Your task to perform on an android device: see sites visited before in the chrome app Image 0: 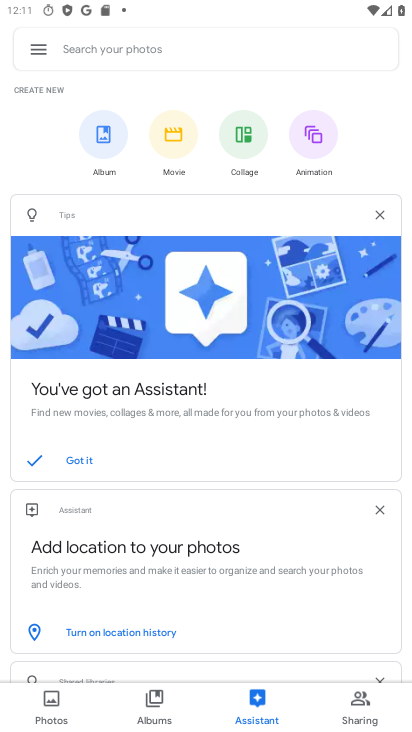
Step 0: drag from (244, 576) to (315, 239)
Your task to perform on an android device: see sites visited before in the chrome app Image 1: 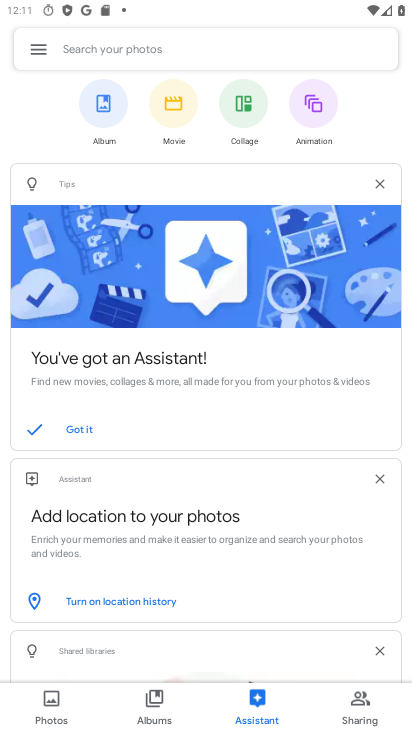
Step 1: press home button
Your task to perform on an android device: see sites visited before in the chrome app Image 2: 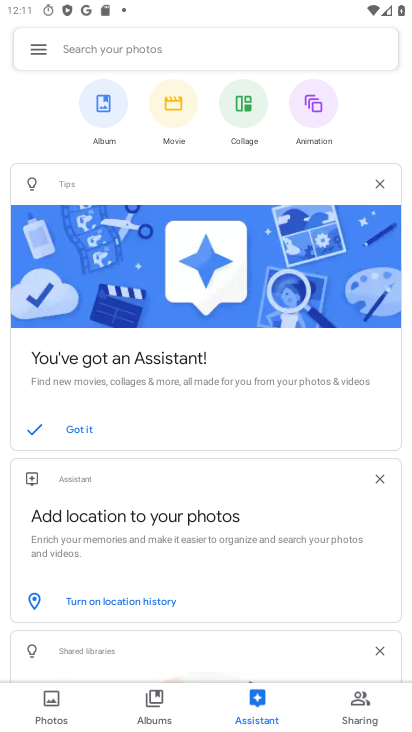
Step 2: drag from (222, 581) to (266, 195)
Your task to perform on an android device: see sites visited before in the chrome app Image 3: 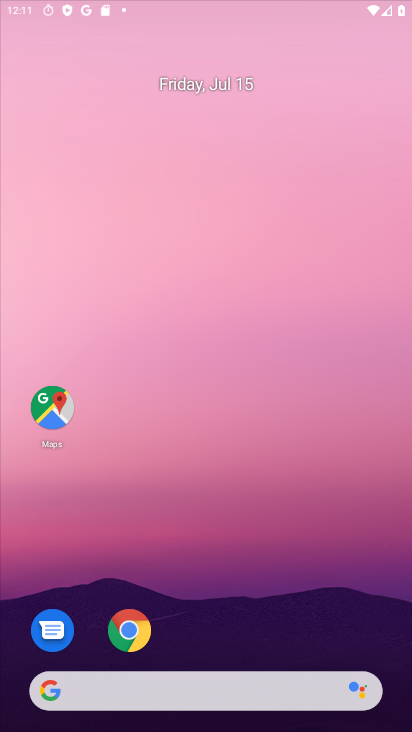
Step 3: drag from (222, 589) to (266, 153)
Your task to perform on an android device: see sites visited before in the chrome app Image 4: 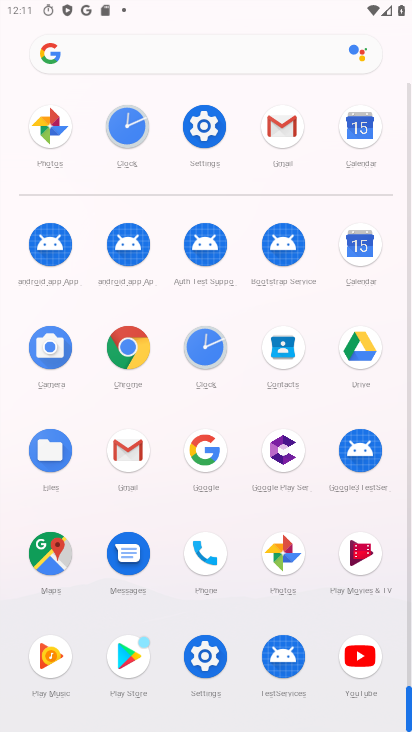
Step 4: click (127, 353)
Your task to perform on an android device: see sites visited before in the chrome app Image 5: 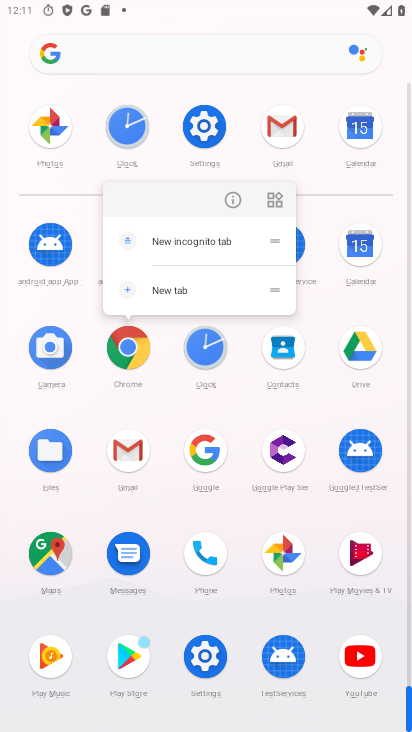
Step 5: click (231, 194)
Your task to perform on an android device: see sites visited before in the chrome app Image 6: 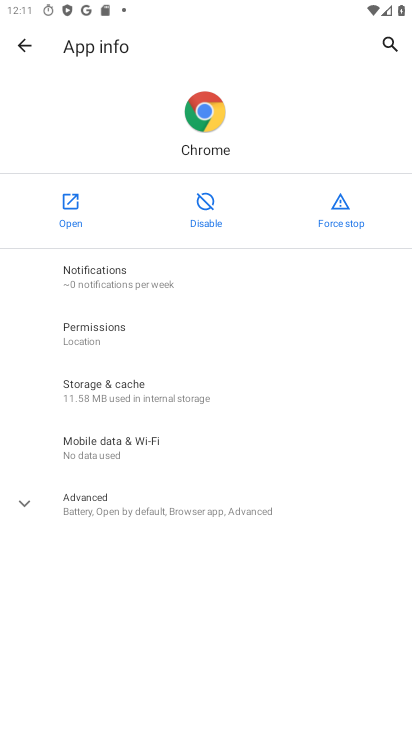
Step 6: click (63, 206)
Your task to perform on an android device: see sites visited before in the chrome app Image 7: 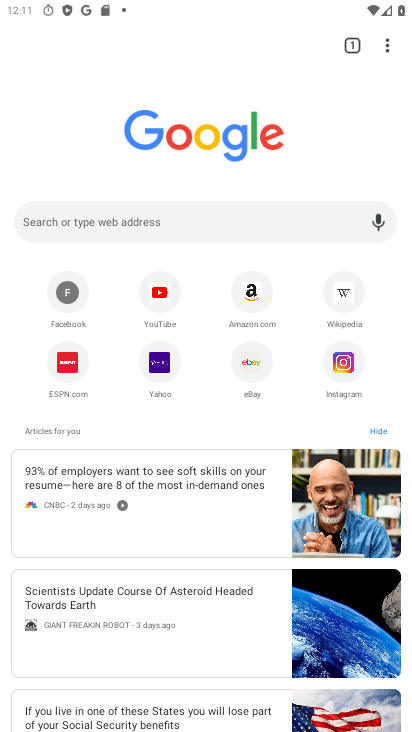
Step 7: drag from (212, 428) to (254, 206)
Your task to perform on an android device: see sites visited before in the chrome app Image 8: 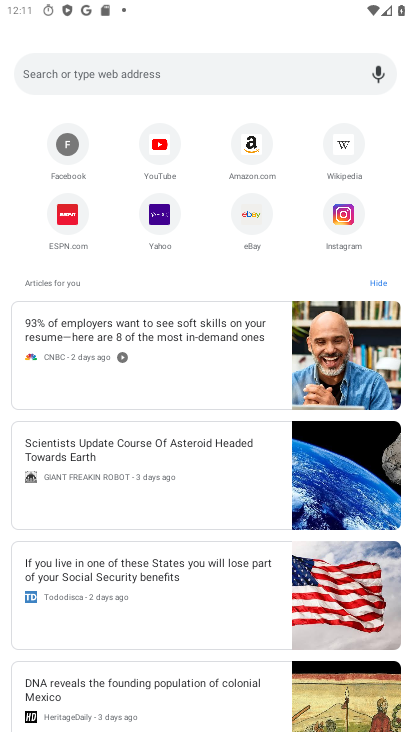
Step 8: drag from (313, 95) to (299, 172)
Your task to perform on an android device: see sites visited before in the chrome app Image 9: 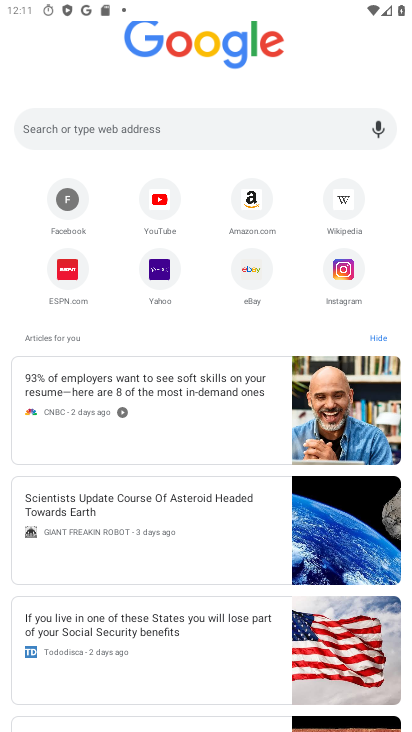
Step 9: drag from (377, 43) to (340, 177)
Your task to perform on an android device: see sites visited before in the chrome app Image 10: 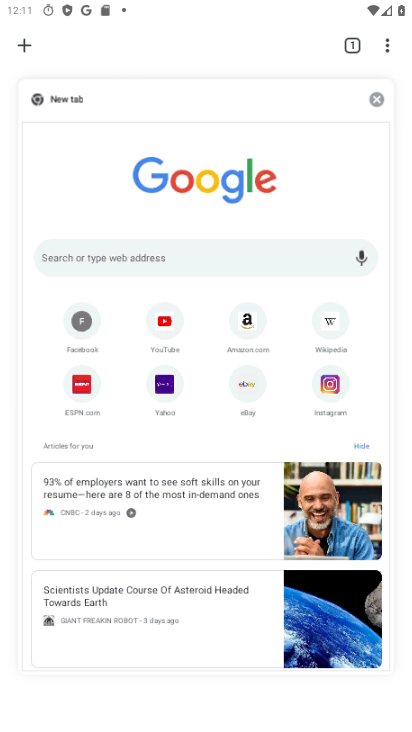
Step 10: click (385, 44)
Your task to perform on an android device: see sites visited before in the chrome app Image 11: 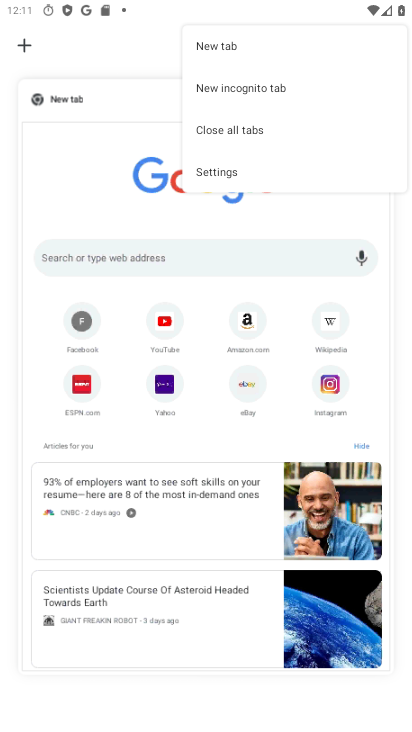
Step 11: click (124, 224)
Your task to perform on an android device: see sites visited before in the chrome app Image 12: 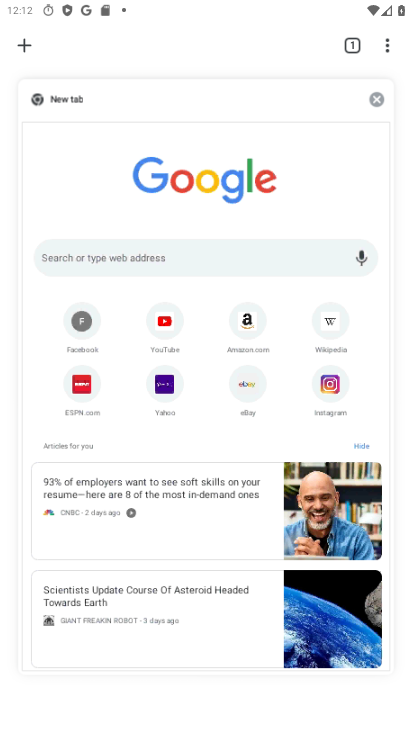
Step 12: click (258, 197)
Your task to perform on an android device: see sites visited before in the chrome app Image 13: 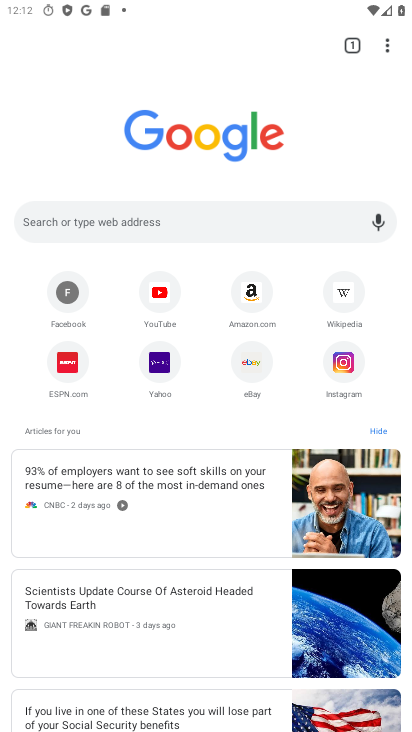
Step 13: click (390, 45)
Your task to perform on an android device: see sites visited before in the chrome app Image 14: 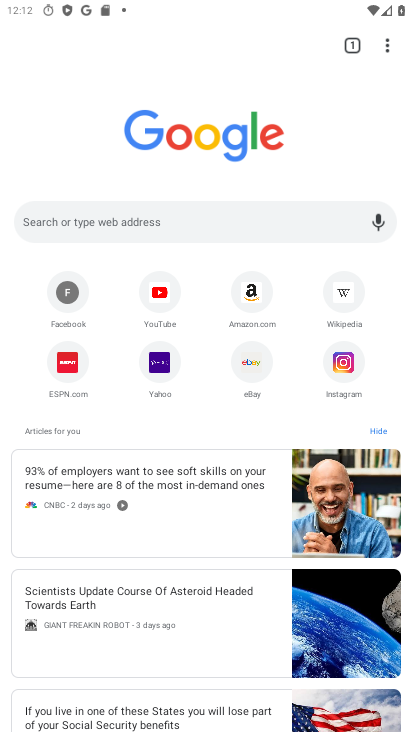
Step 14: task complete